Your task to perform on an android device: toggle notifications settings in the gmail app Image 0: 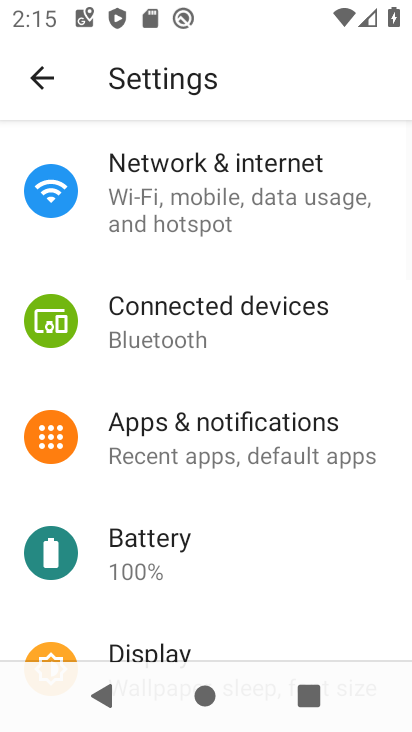
Step 0: press home button
Your task to perform on an android device: toggle notifications settings in the gmail app Image 1: 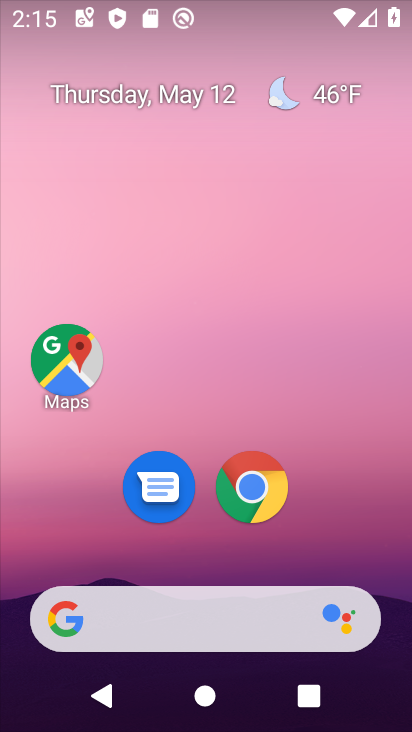
Step 1: drag from (361, 551) to (357, 71)
Your task to perform on an android device: toggle notifications settings in the gmail app Image 2: 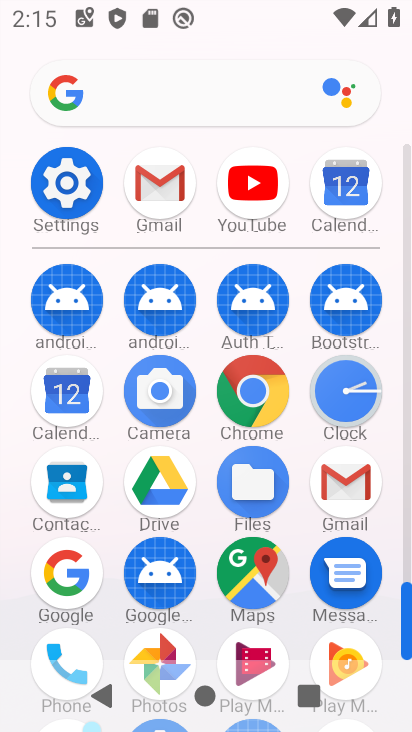
Step 2: click (336, 495)
Your task to perform on an android device: toggle notifications settings in the gmail app Image 3: 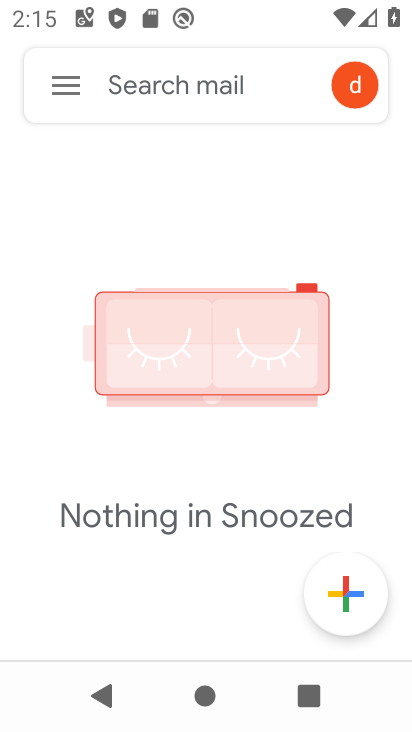
Step 3: click (65, 84)
Your task to perform on an android device: toggle notifications settings in the gmail app Image 4: 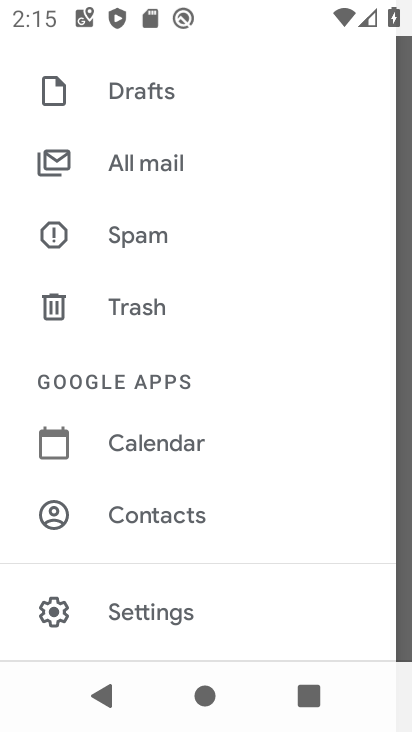
Step 4: click (169, 592)
Your task to perform on an android device: toggle notifications settings in the gmail app Image 5: 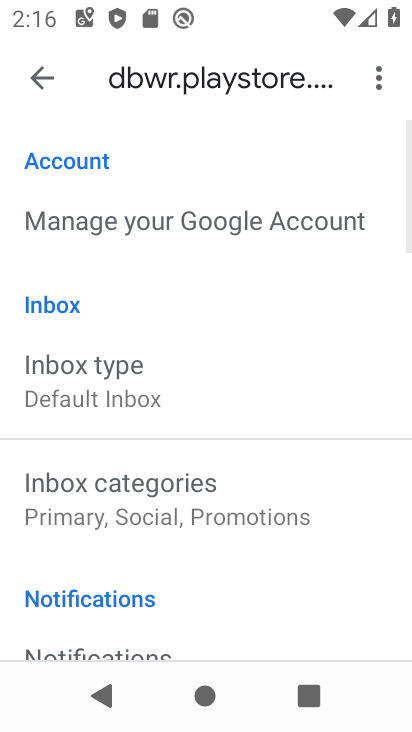
Step 5: drag from (169, 541) to (157, 312)
Your task to perform on an android device: toggle notifications settings in the gmail app Image 6: 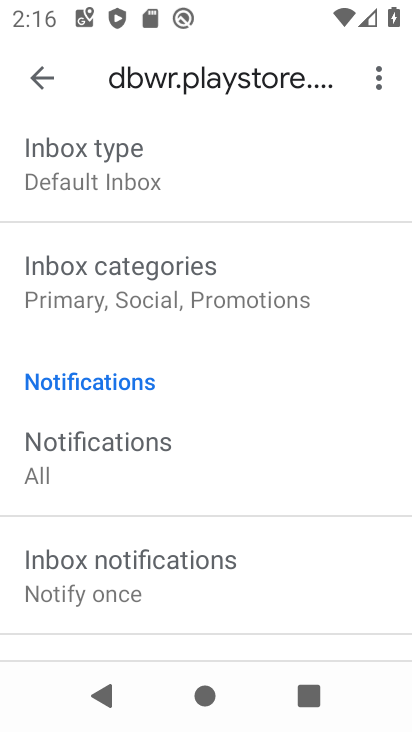
Step 6: drag from (169, 475) to (114, 283)
Your task to perform on an android device: toggle notifications settings in the gmail app Image 7: 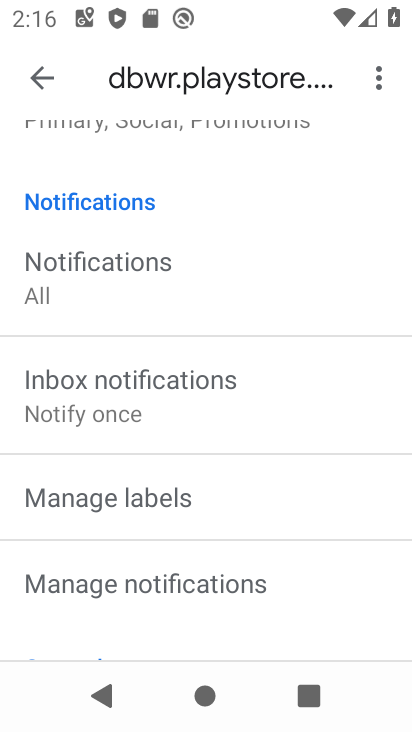
Step 7: click (141, 597)
Your task to perform on an android device: toggle notifications settings in the gmail app Image 8: 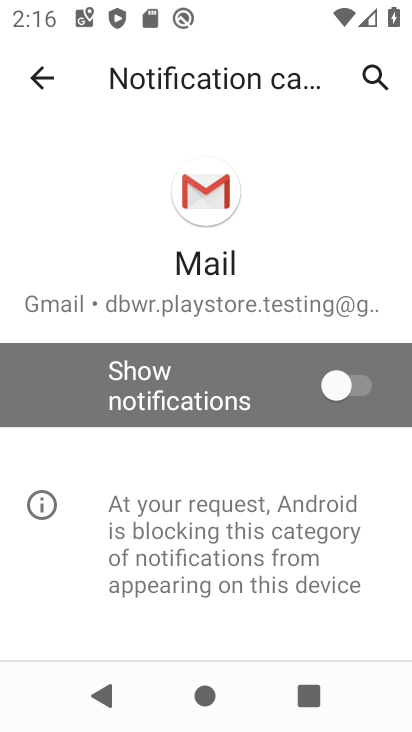
Step 8: click (357, 384)
Your task to perform on an android device: toggle notifications settings in the gmail app Image 9: 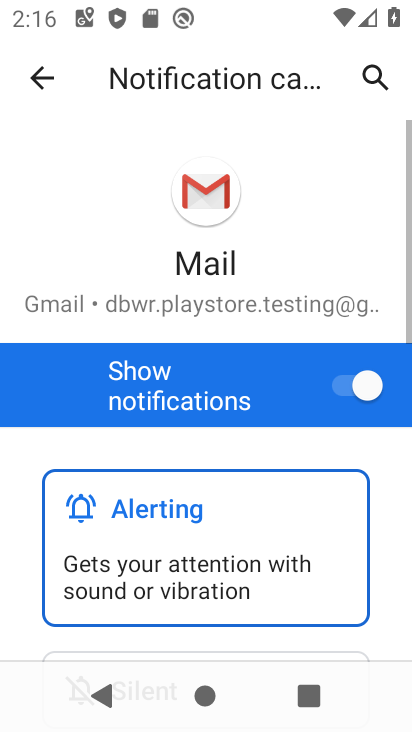
Step 9: task complete